Your task to perform on an android device: change alarm snooze length Image 0: 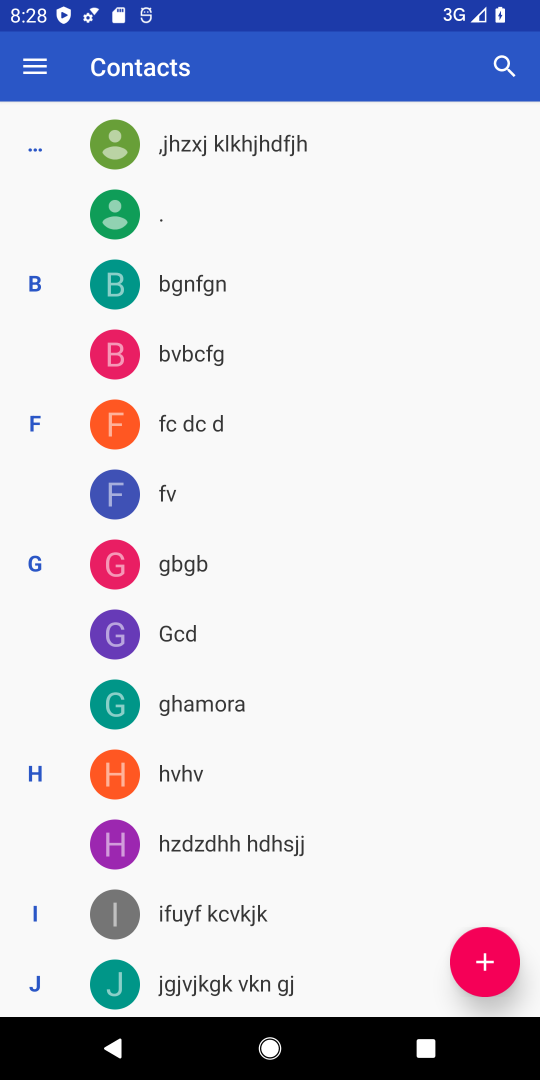
Step 0: press home button
Your task to perform on an android device: change alarm snooze length Image 1: 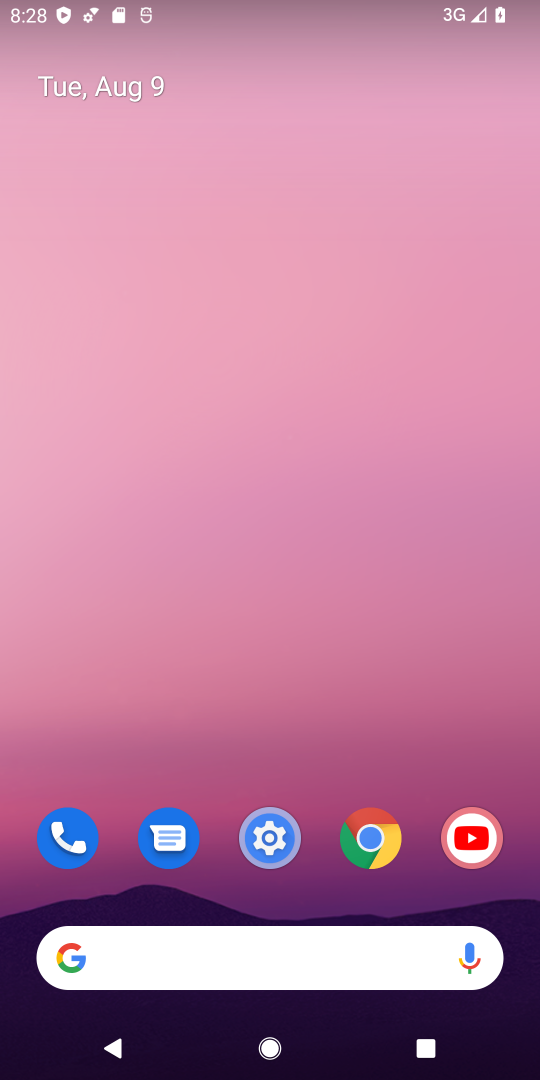
Step 1: drag from (222, 533) to (242, 378)
Your task to perform on an android device: change alarm snooze length Image 2: 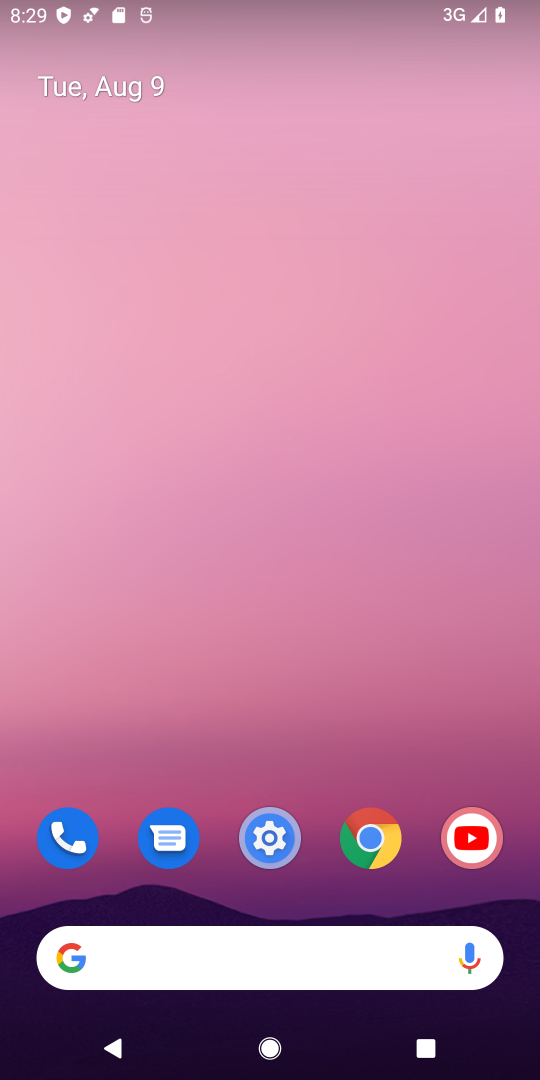
Step 2: drag from (288, 944) to (351, 298)
Your task to perform on an android device: change alarm snooze length Image 3: 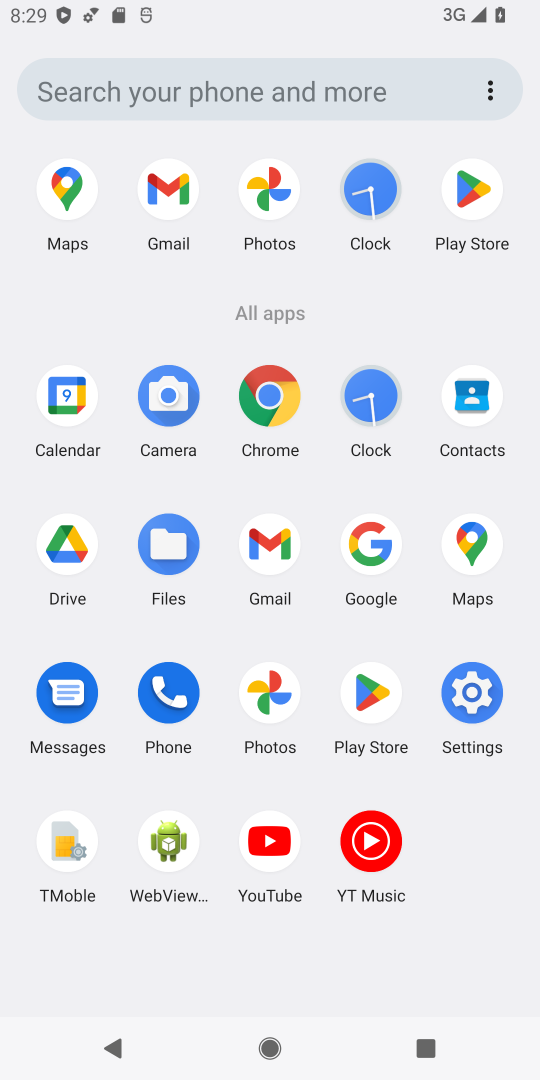
Step 3: click (373, 397)
Your task to perform on an android device: change alarm snooze length Image 4: 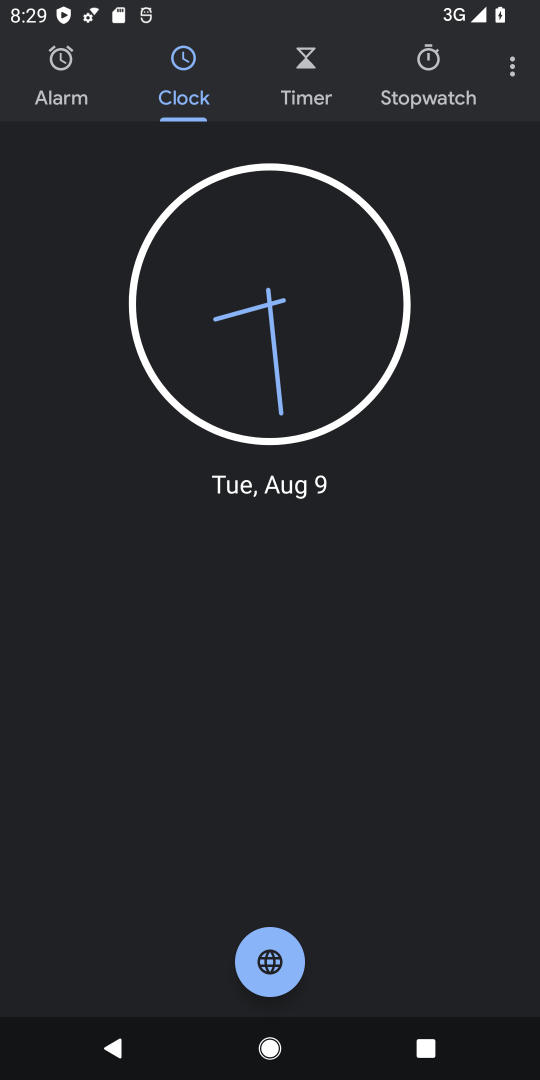
Step 4: click (515, 69)
Your task to perform on an android device: change alarm snooze length Image 5: 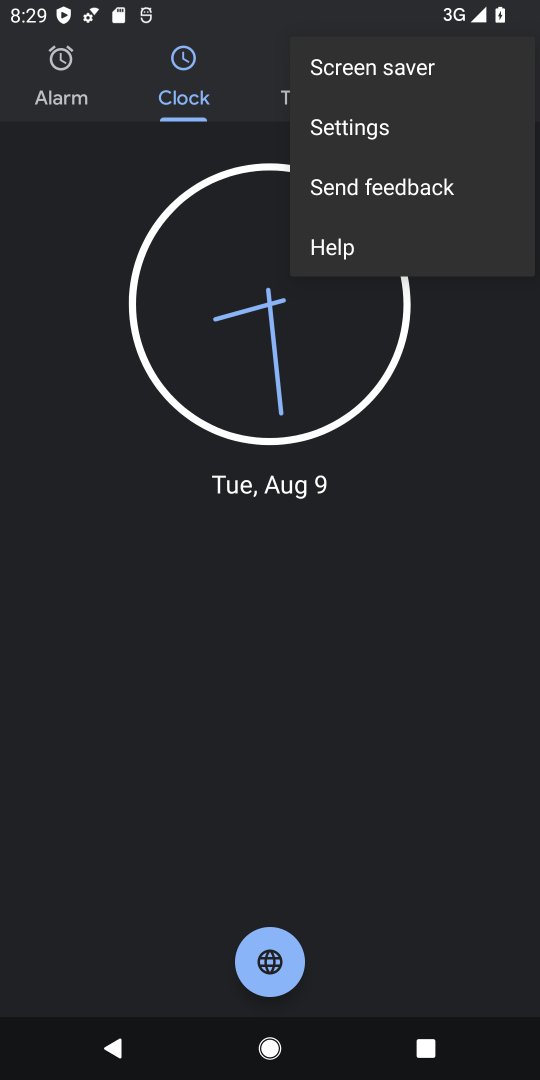
Step 5: click (374, 143)
Your task to perform on an android device: change alarm snooze length Image 6: 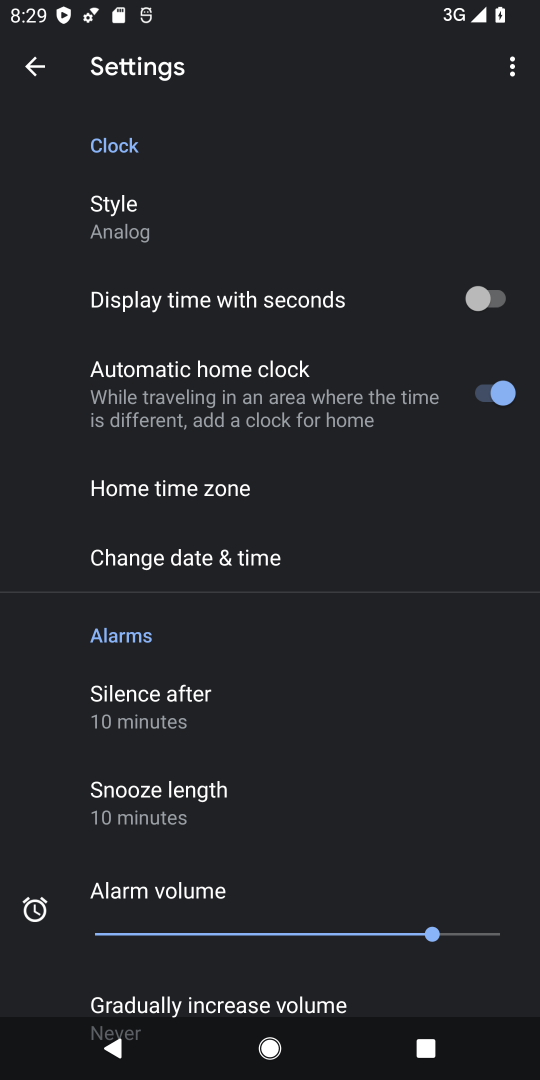
Step 6: click (242, 802)
Your task to perform on an android device: change alarm snooze length Image 7: 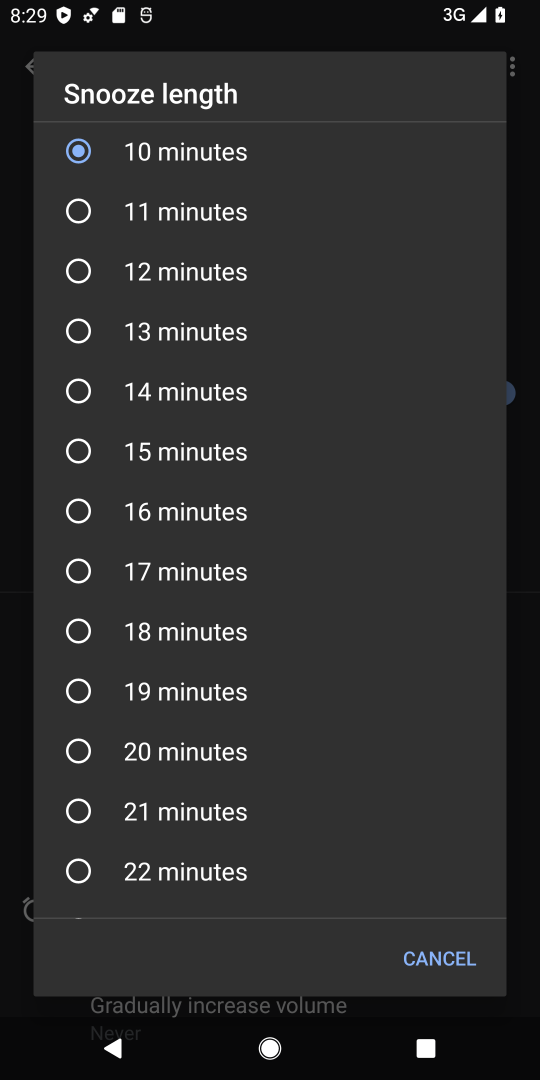
Step 7: click (93, 873)
Your task to perform on an android device: change alarm snooze length Image 8: 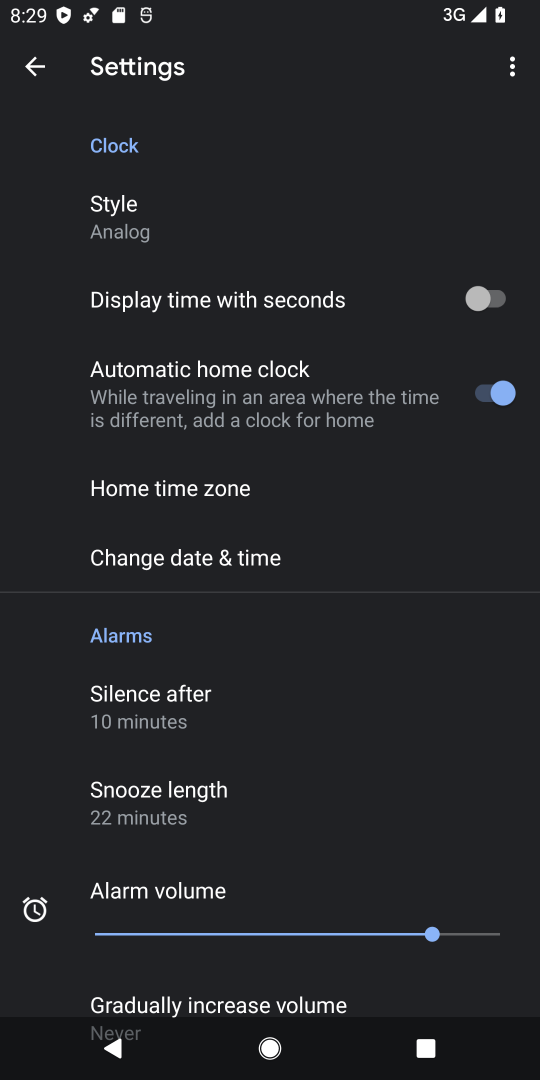
Step 8: task complete